Your task to perform on an android device: Open calendar and show me the fourth week of next month Image 0: 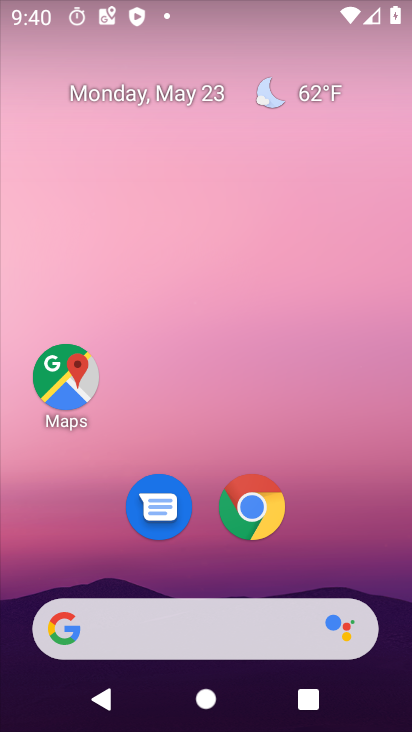
Step 0: drag from (332, 559) to (277, 109)
Your task to perform on an android device: Open calendar and show me the fourth week of next month Image 1: 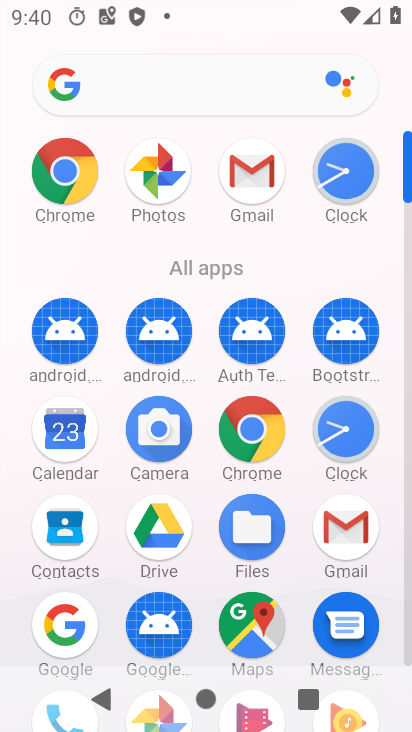
Step 1: click (66, 426)
Your task to perform on an android device: Open calendar and show me the fourth week of next month Image 2: 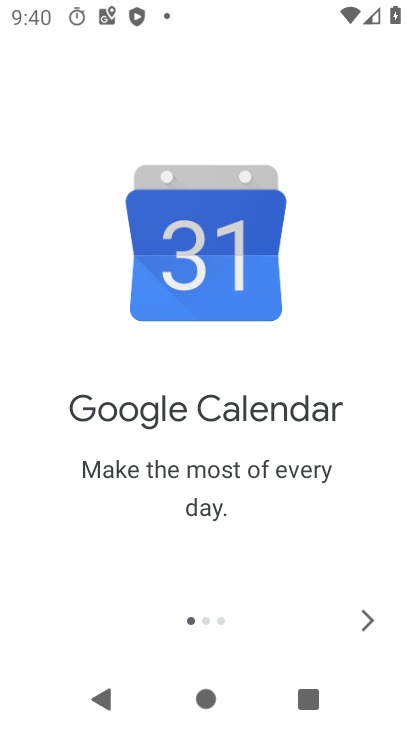
Step 2: click (372, 615)
Your task to perform on an android device: Open calendar and show me the fourth week of next month Image 3: 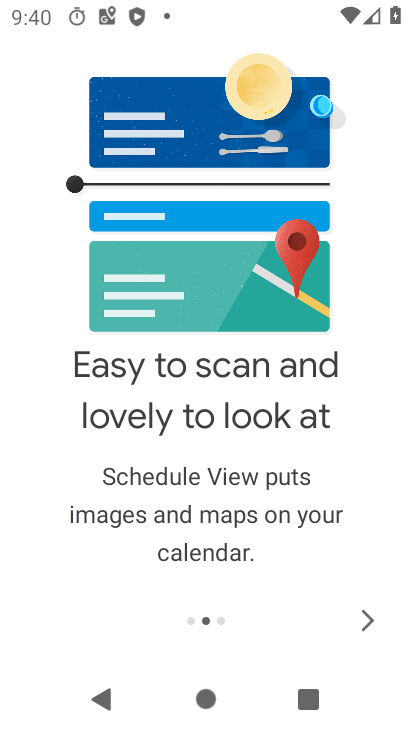
Step 3: click (372, 615)
Your task to perform on an android device: Open calendar and show me the fourth week of next month Image 4: 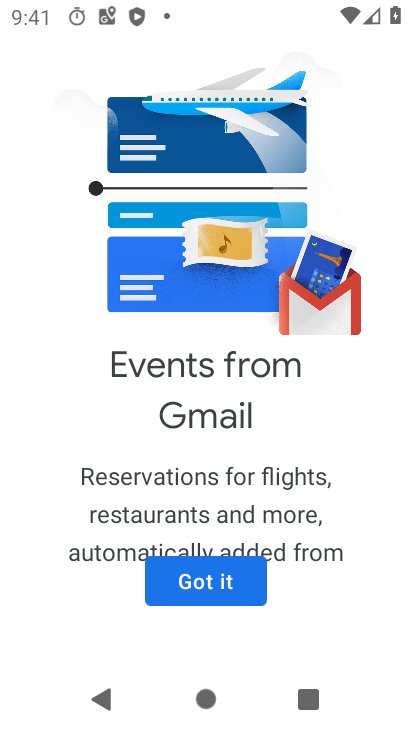
Step 4: click (217, 589)
Your task to perform on an android device: Open calendar and show me the fourth week of next month Image 5: 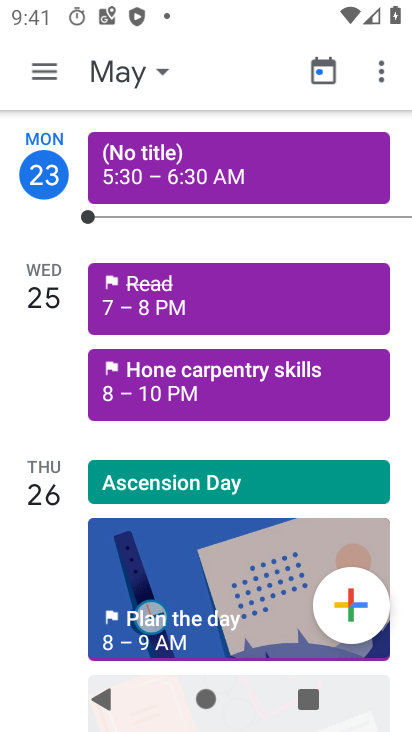
Step 5: click (164, 64)
Your task to perform on an android device: Open calendar and show me the fourth week of next month Image 6: 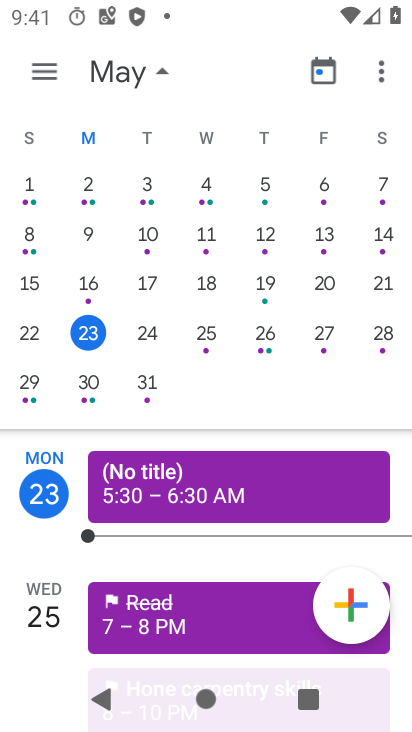
Step 6: drag from (377, 305) to (22, 261)
Your task to perform on an android device: Open calendar and show me the fourth week of next month Image 7: 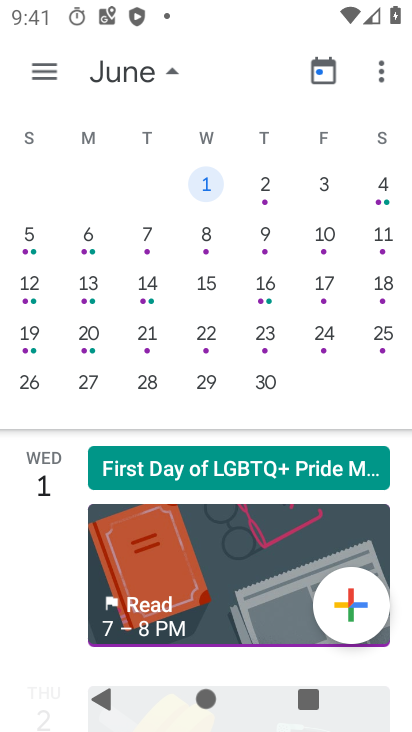
Step 7: click (86, 376)
Your task to perform on an android device: Open calendar and show me the fourth week of next month Image 8: 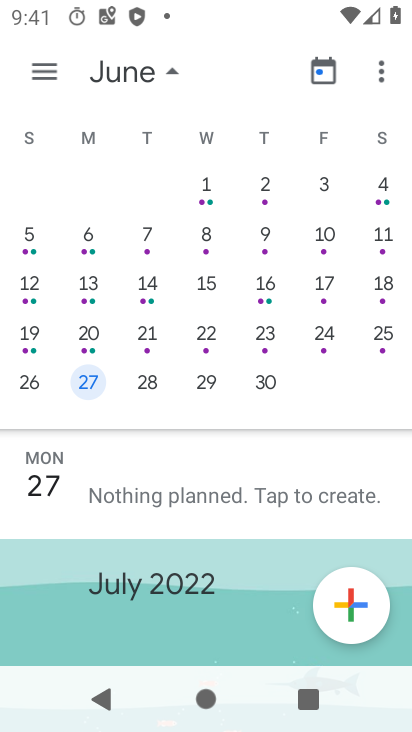
Step 8: click (41, 76)
Your task to perform on an android device: Open calendar and show me the fourth week of next month Image 9: 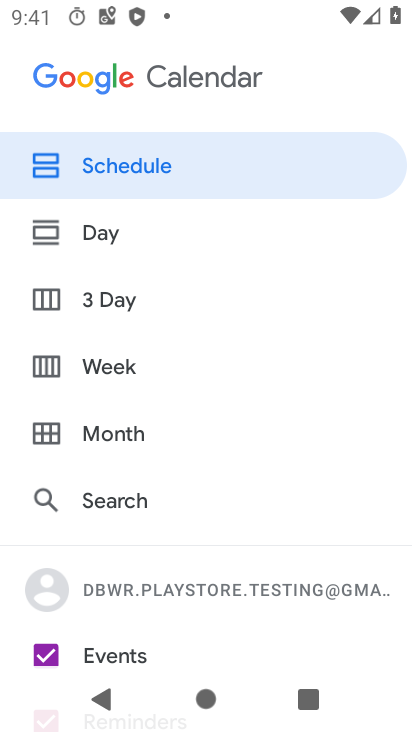
Step 9: click (113, 373)
Your task to perform on an android device: Open calendar and show me the fourth week of next month Image 10: 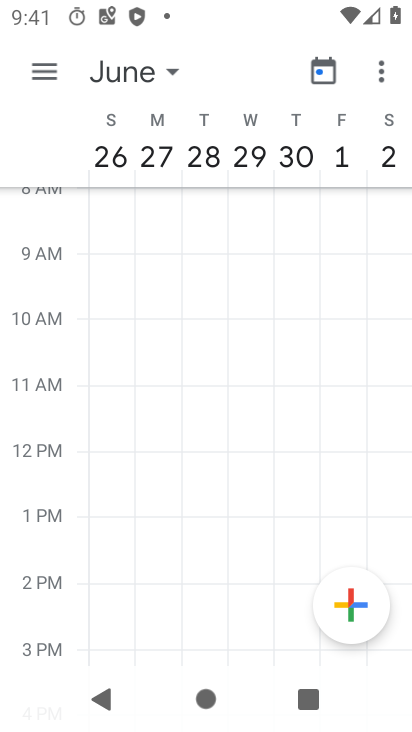
Step 10: task complete